Your task to perform on an android device: Open Android settings Image 0: 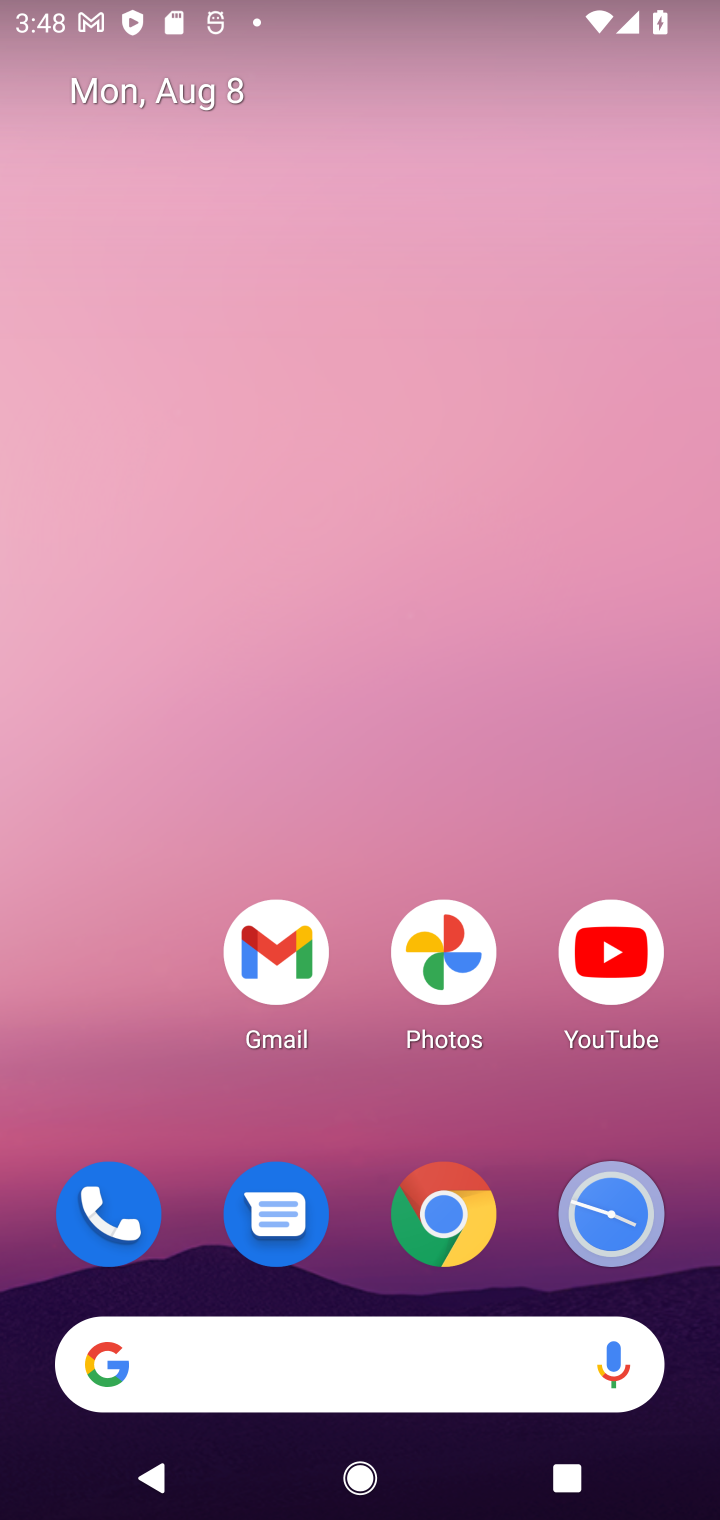
Step 0: drag from (387, 1140) to (418, 130)
Your task to perform on an android device: Open Android settings Image 1: 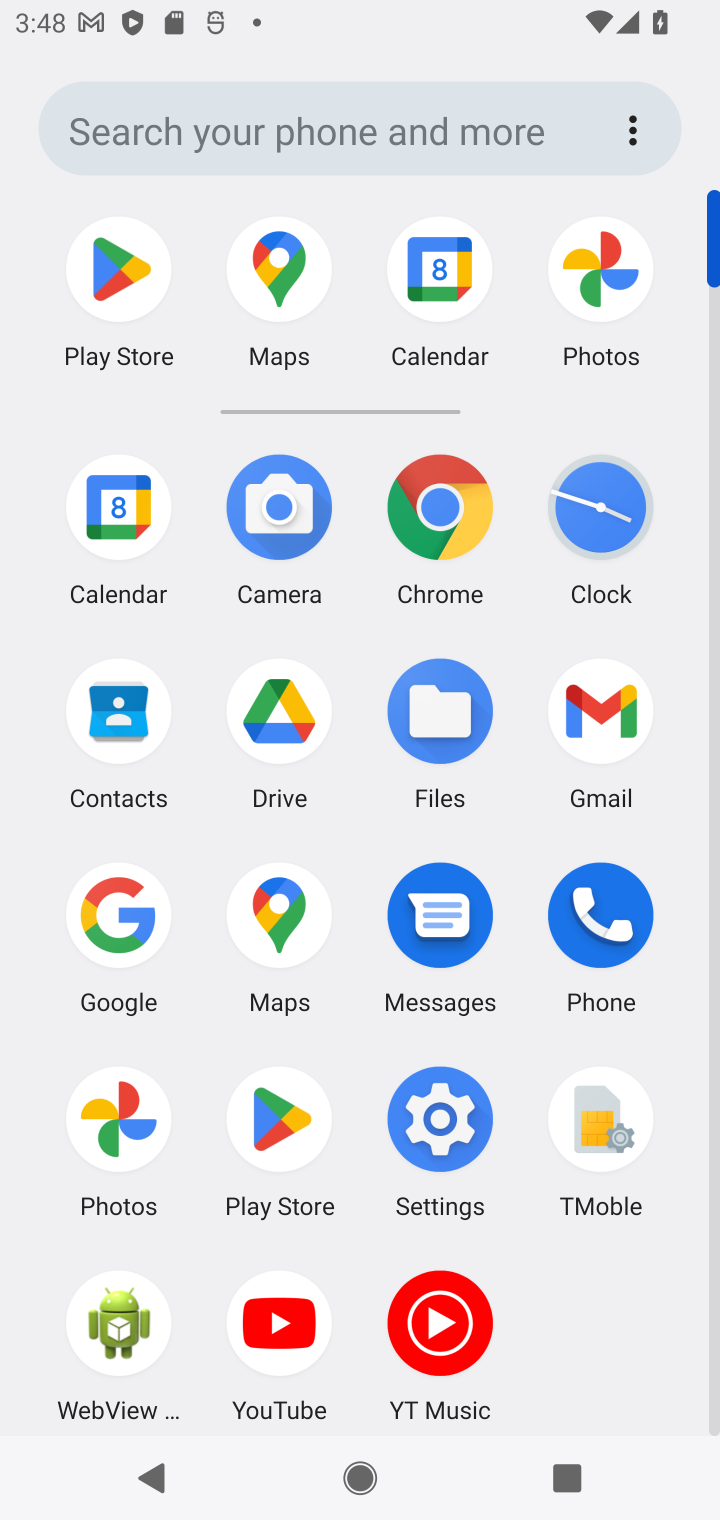
Step 1: click (476, 1116)
Your task to perform on an android device: Open Android settings Image 2: 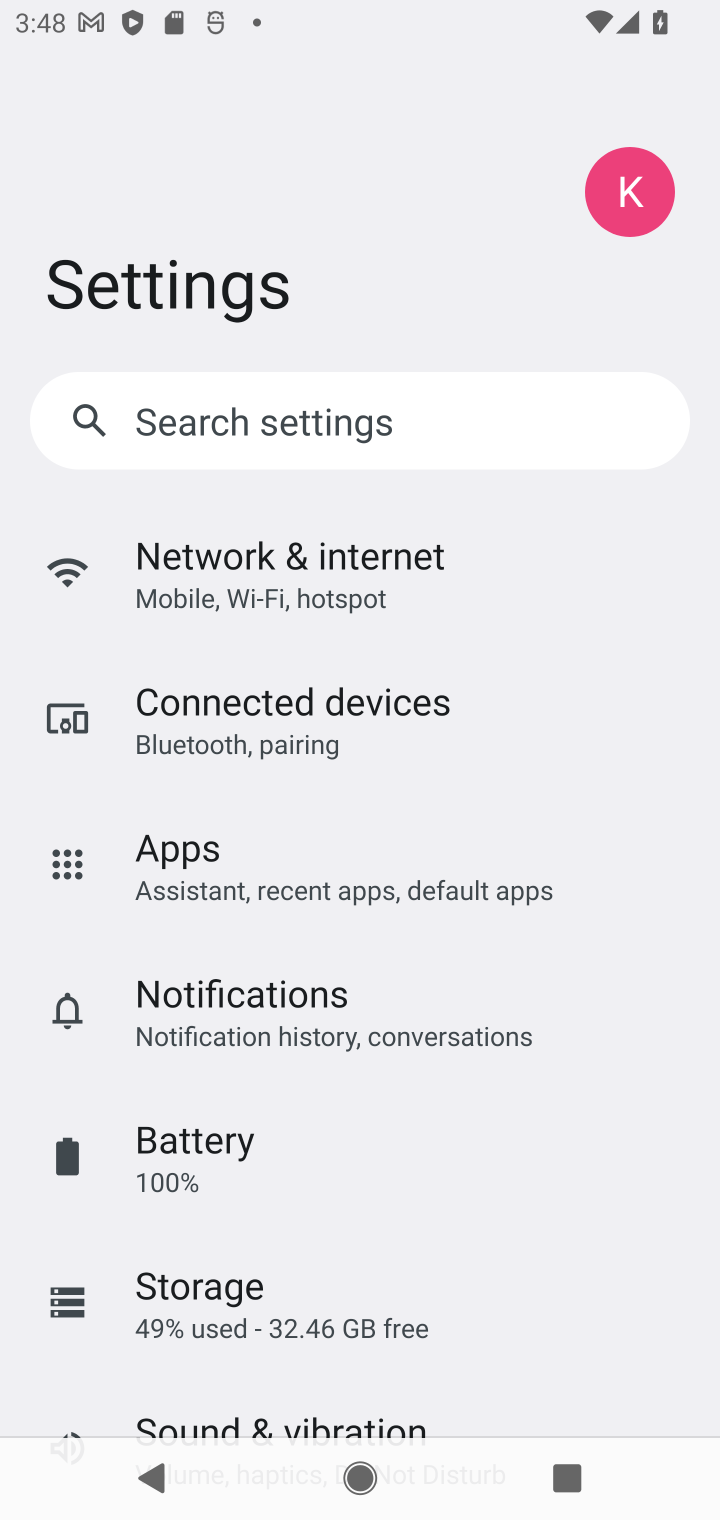
Step 2: task complete